Your task to perform on an android device: change keyboard looks Image 0: 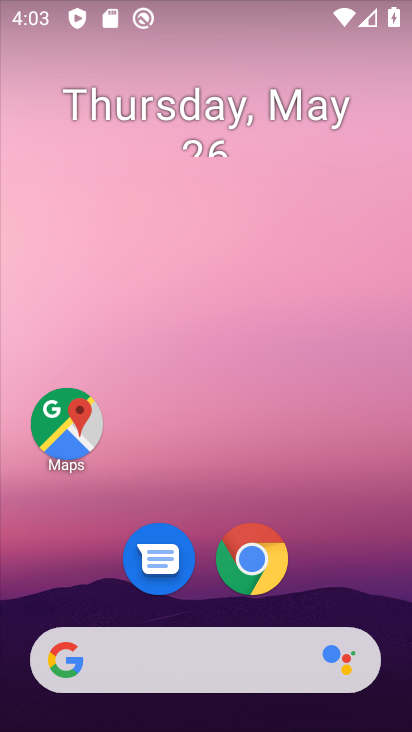
Step 0: drag from (305, 427) to (203, 23)
Your task to perform on an android device: change keyboard looks Image 1: 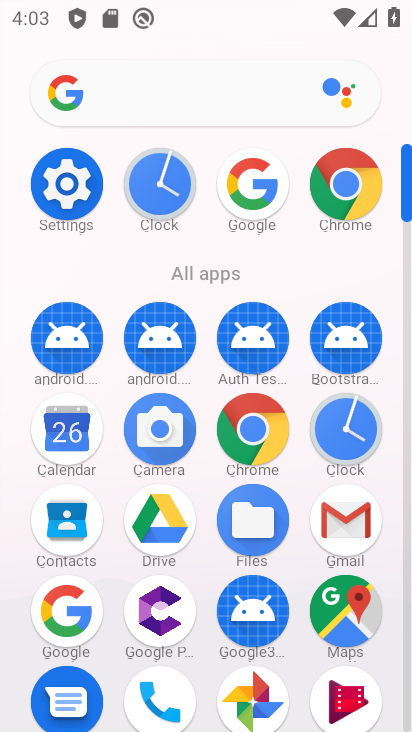
Step 1: click (56, 176)
Your task to perform on an android device: change keyboard looks Image 2: 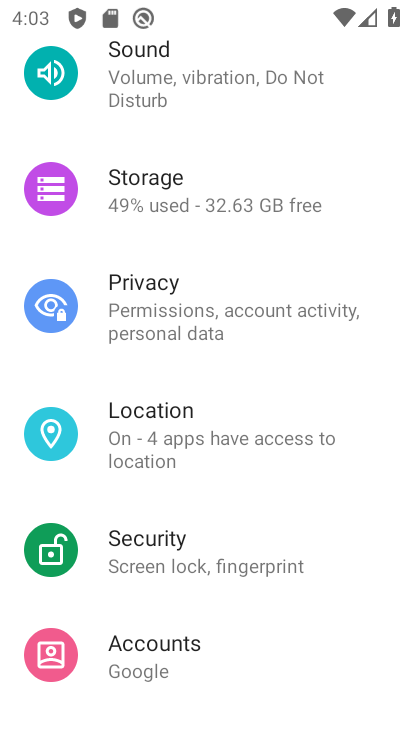
Step 2: drag from (258, 578) to (205, 17)
Your task to perform on an android device: change keyboard looks Image 3: 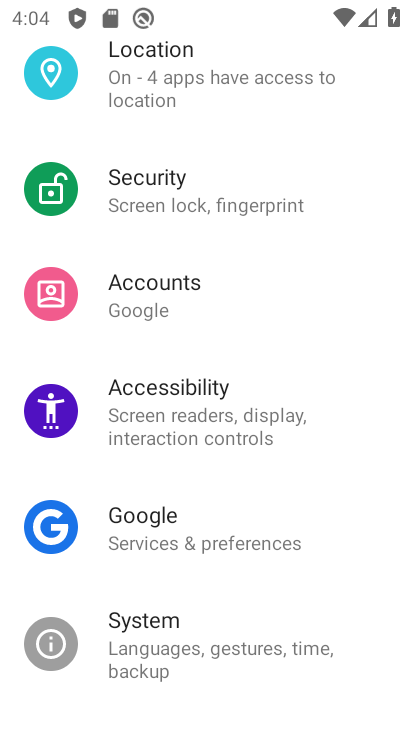
Step 3: click (188, 627)
Your task to perform on an android device: change keyboard looks Image 4: 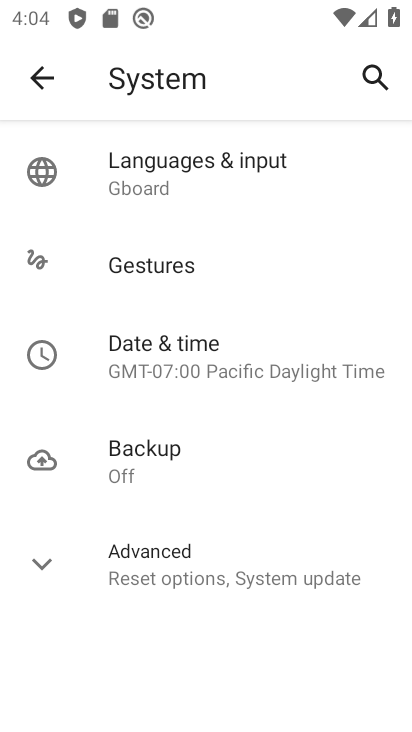
Step 4: click (194, 158)
Your task to perform on an android device: change keyboard looks Image 5: 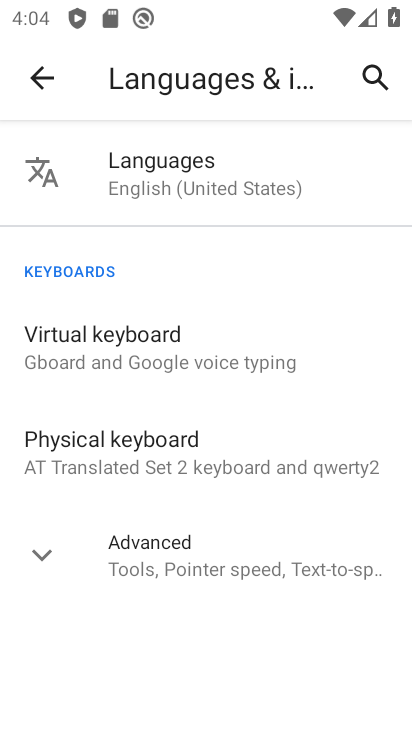
Step 5: click (169, 346)
Your task to perform on an android device: change keyboard looks Image 6: 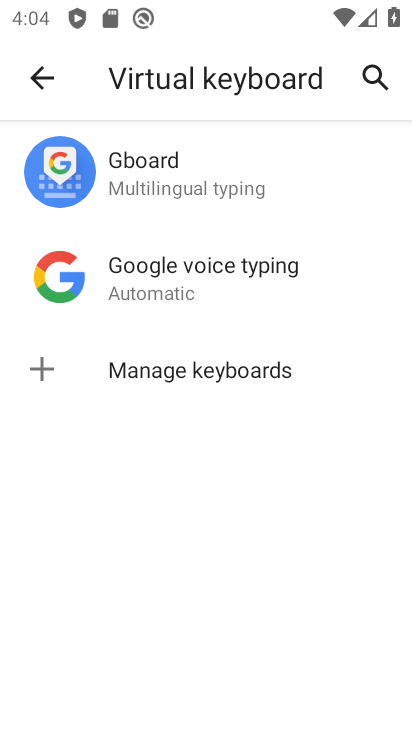
Step 6: click (151, 182)
Your task to perform on an android device: change keyboard looks Image 7: 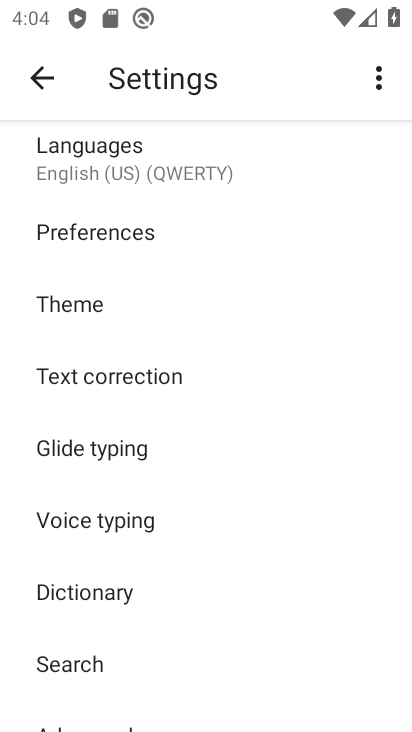
Step 7: click (119, 291)
Your task to perform on an android device: change keyboard looks Image 8: 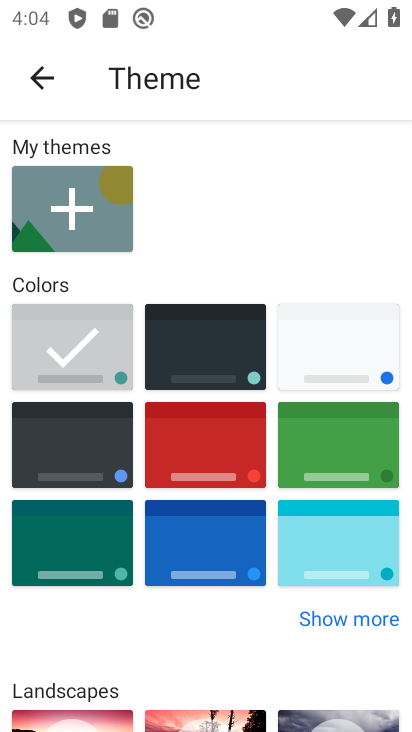
Step 8: click (229, 449)
Your task to perform on an android device: change keyboard looks Image 9: 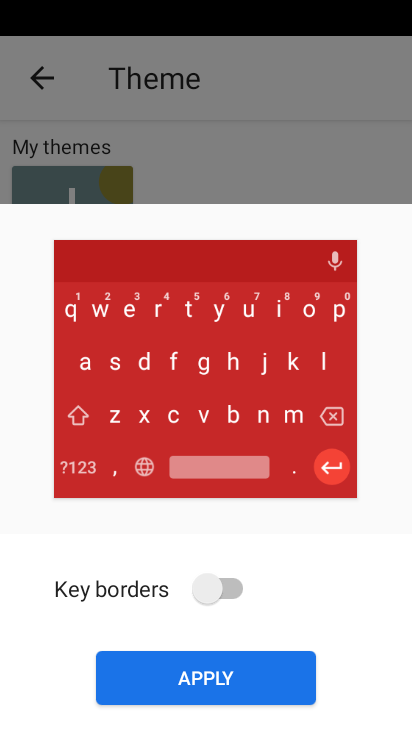
Step 9: click (204, 668)
Your task to perform on an android device: change keyboard looks Image 10: 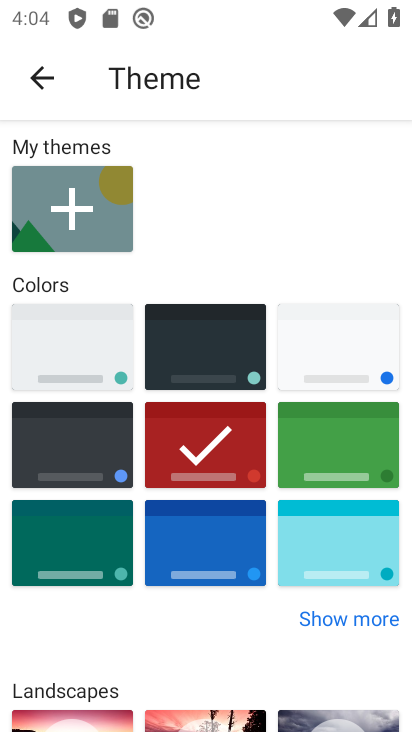
Step 10: task complete